Your task to perform on an android device: Go to internet settings Image 0: 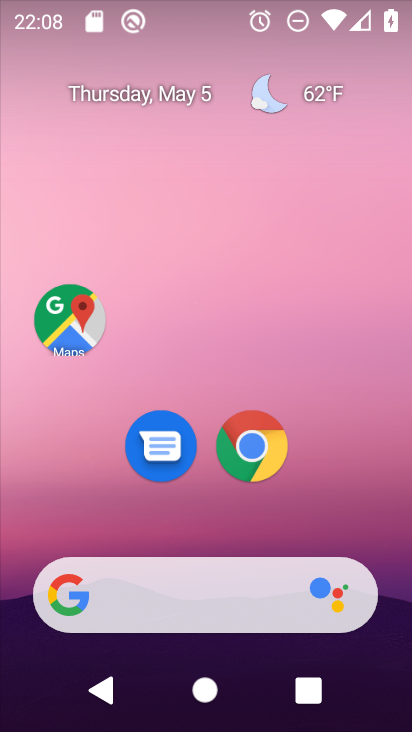
Step 0: drag from (348, 643) to (272, 82)
Your task to perform on an android device: Go to internet settings Image 1: 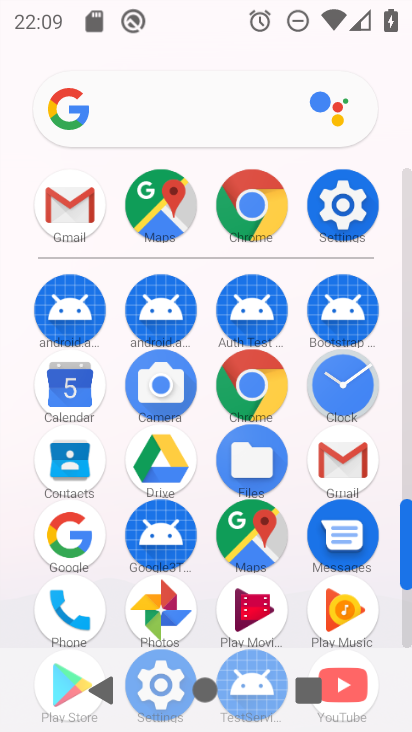
Step 1: click (341, 182)
Your task to perform on an android device: Go to internet settings Image 2: 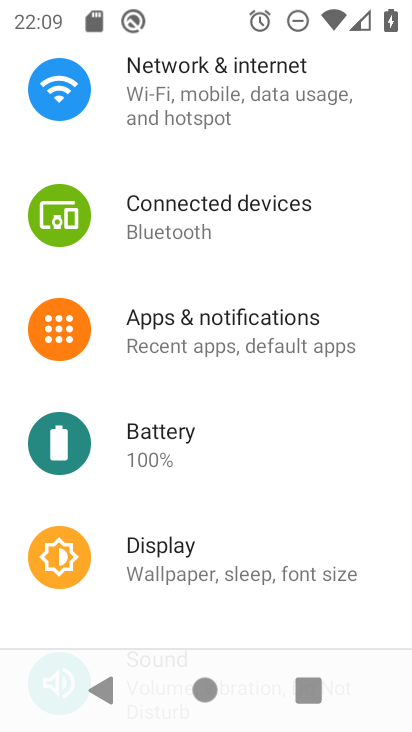
Step 2: click (209, 134)
Your task to perform on an android device: Go to internet settings Image 3: 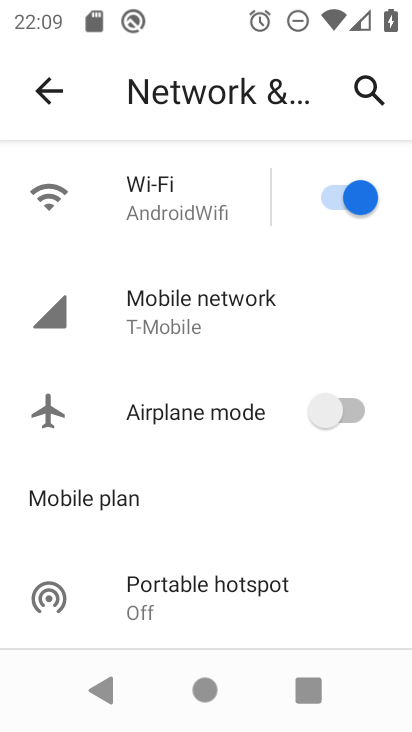
Step 3: task complete